Your task to perform on an android device: Open the Play Movies app and select the watchlist tab. Image 0: 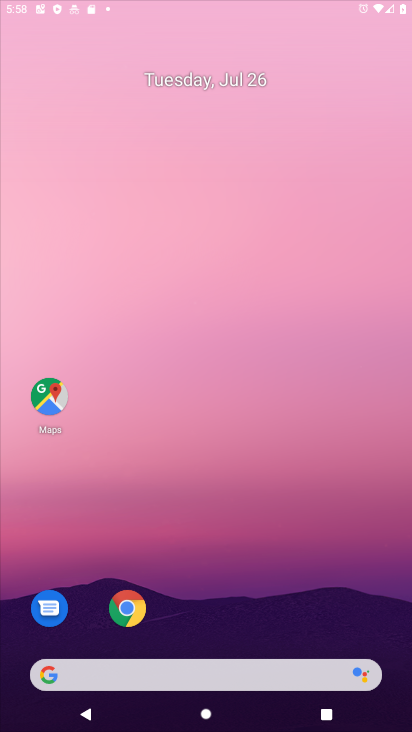
Step 0: press home button
Your task to perform on an android device: Open the Play Movies app and select the watchlist tab. Image 1: 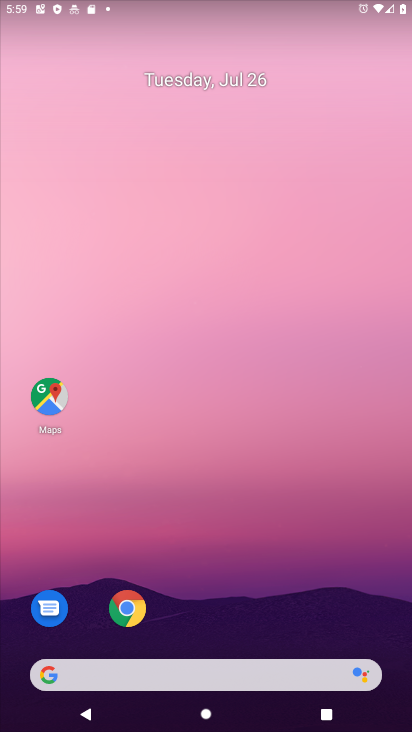
Step 1: drag from (325, 595) to (394, 289)
Your task to perform on an android device: Open the Play Movies app and select the watchlist tab. Image 2: 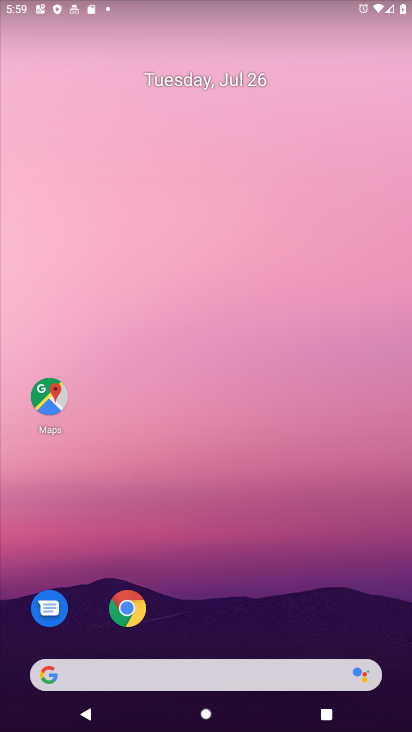
Step 2: drag from (224, 649) to (349, 0)
Your task to perform on an android device: Open the Play Movies app and select the watchlist tab. Image 3: 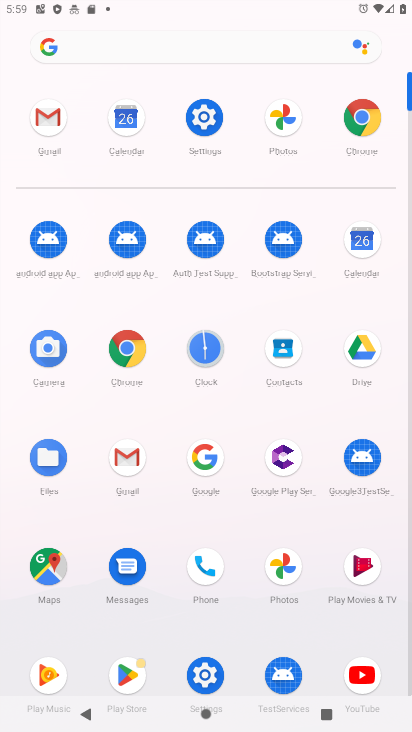
Step 3: click (369, 555)
Your task to perform on an android device: Open the Play Movies app and select the watchlist tab. Image 4: 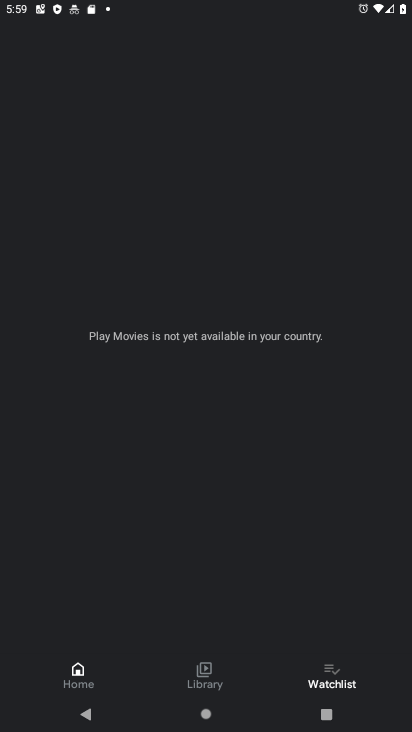
Step 4: click (341, 667)
Your task to perform on an android device: Open the Play Movies app and select the watchlist tab. Image 5: 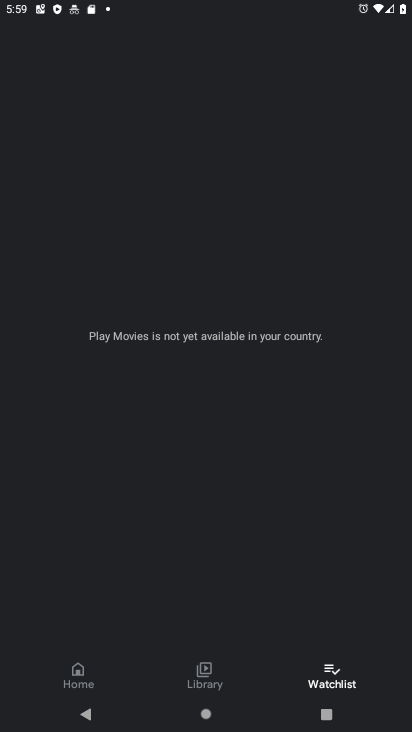
Step 5: task complete